Your task to perform on an android device: show emergency info Image 0: 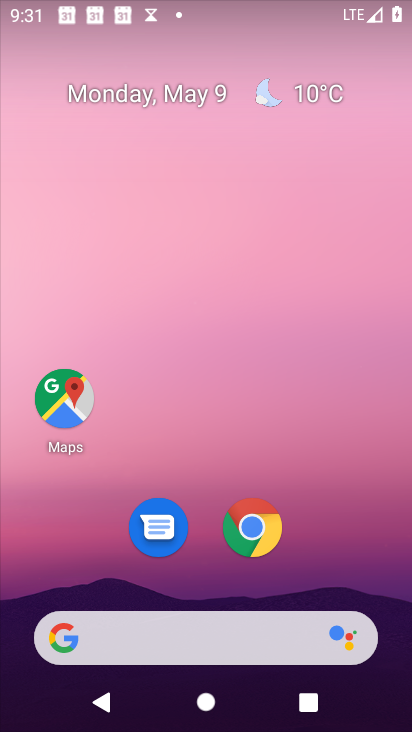
Step 0: drag from (308, 581) to (345, 0)
Your task to perform on an android device: show emergency info Image 1: 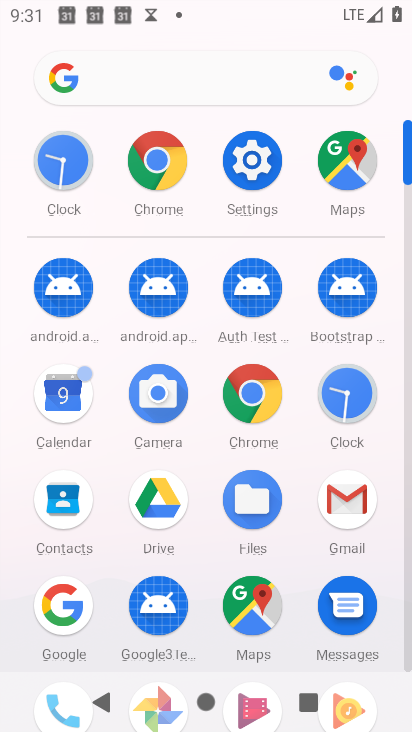
Step 1: click (255, 197)
Your task to perform on an android device: show emergency info Image 2: 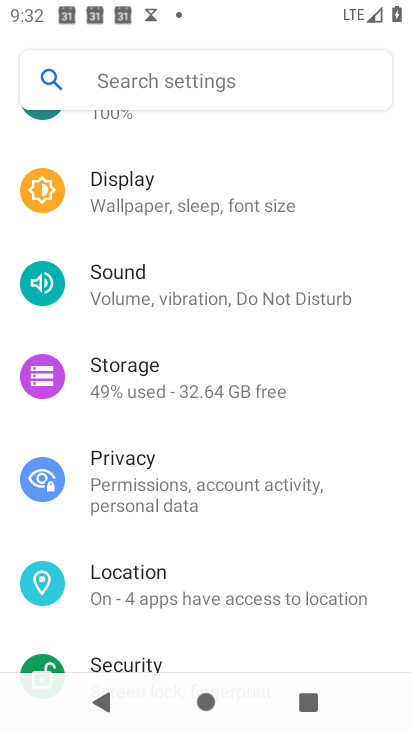
Step 2: drag from (173, 509) to (225, 105)
Your task to perform on an android device: show emergency info Image 3: 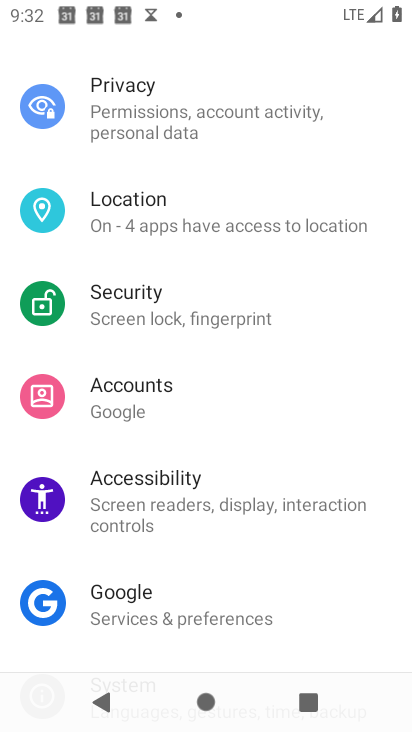
Step 3: drag from (148, 615) to (203, 269)
Your task to perform on an android device: show emergency info Image 4: 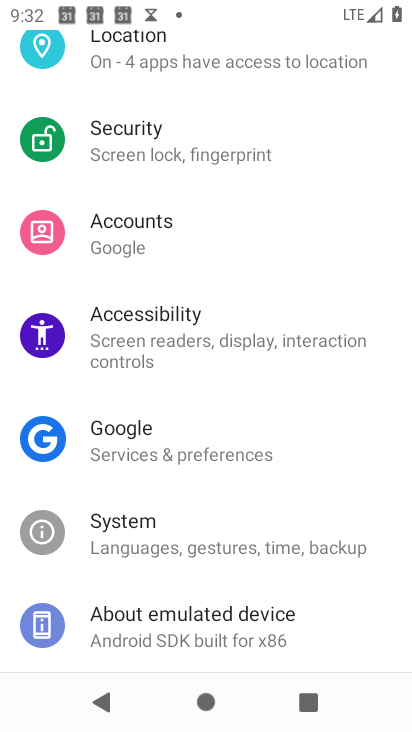
Step 4: click (194, 623)
Your task to perform on an android device: show emergency info Image 5: 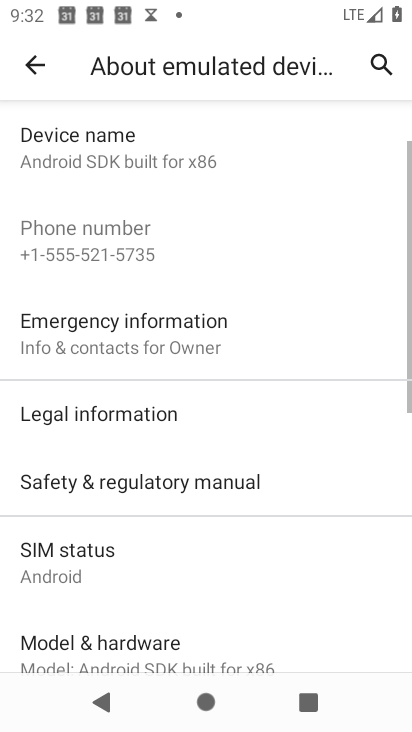
Step 5: drag from (175, 608) to (239, 143)
Your task to perform on an android device: show emergency info Image 6: 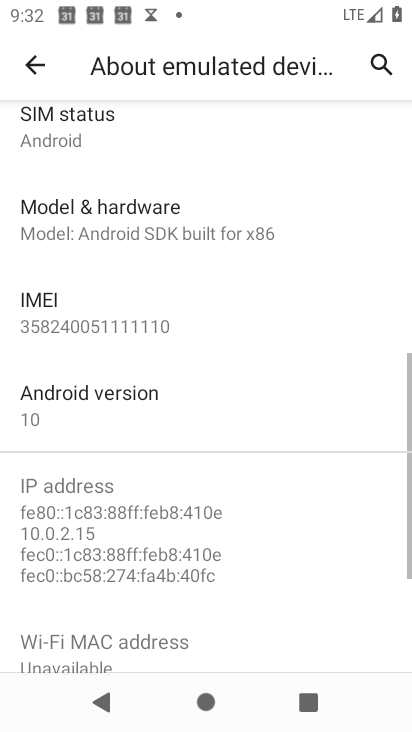
Step 6: drag from (155, 216) to (170, 606)
Your task to perform on an android device: show emergency info Image 7: 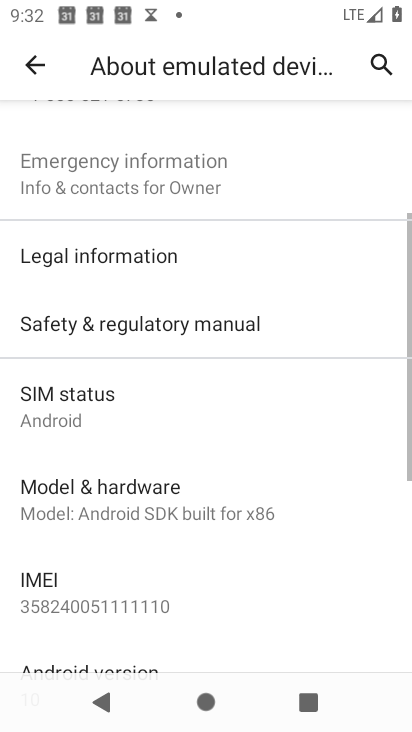
Step 7: click (163, 192)
Your task to perform on an android device: show emergency info Image 8: 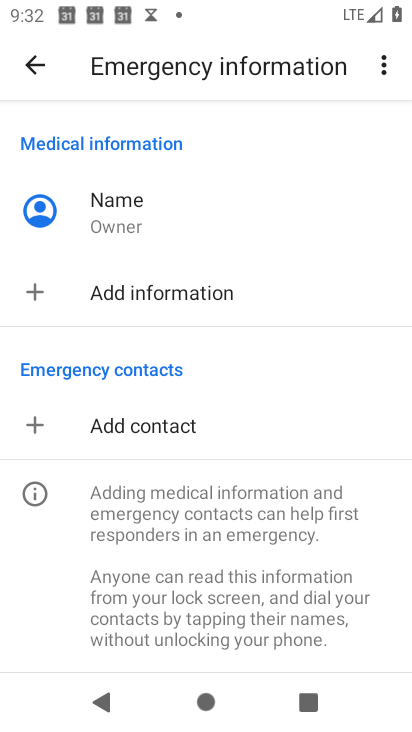
Step 8: task complete